Your task to perform on an android device: visit the assistant section in the google photos Image 0: 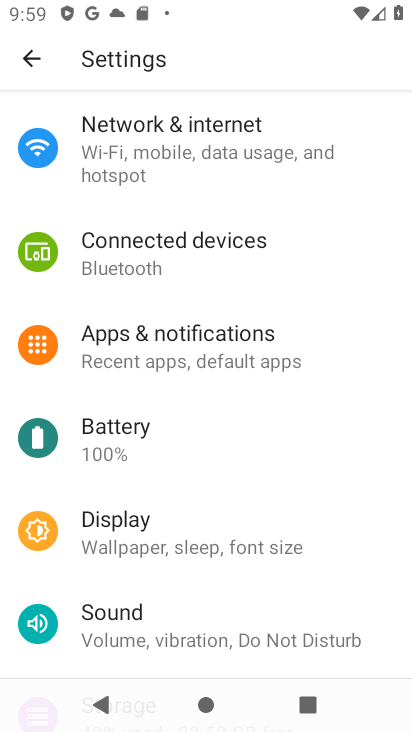
Step 0: press home button
Your task to perform on an android device: visit the assistant section in the google photos Image 1: 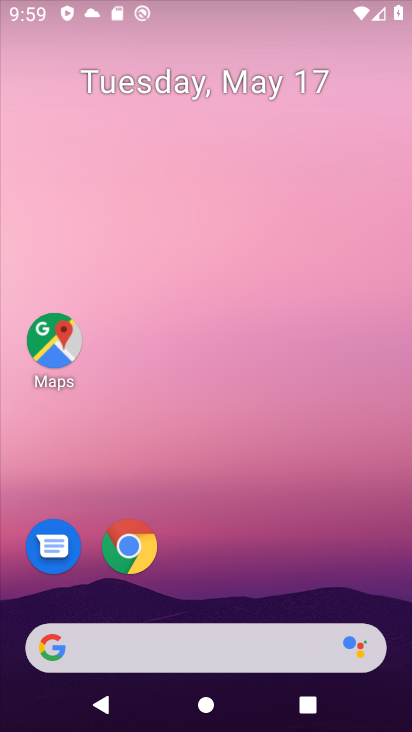
Step 1: drag from (186, 618) to (263, 230)
Your task to perform on an android device: visit the assistant section in the google photos Image 2: 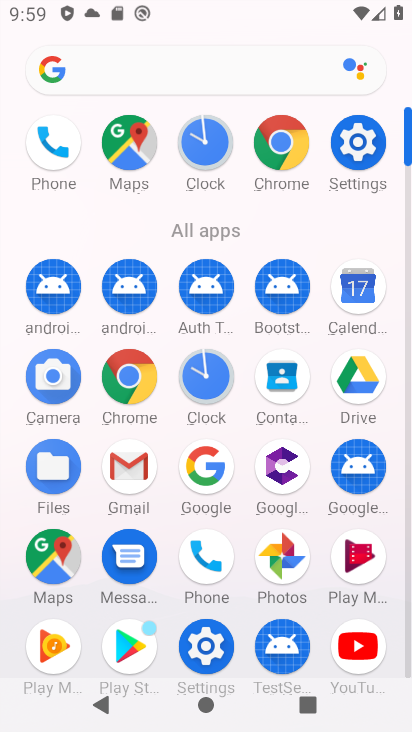
Step 2: click (273, 557)
Your task to perform on an android device: visit the assistant section in the google photos Image 3: 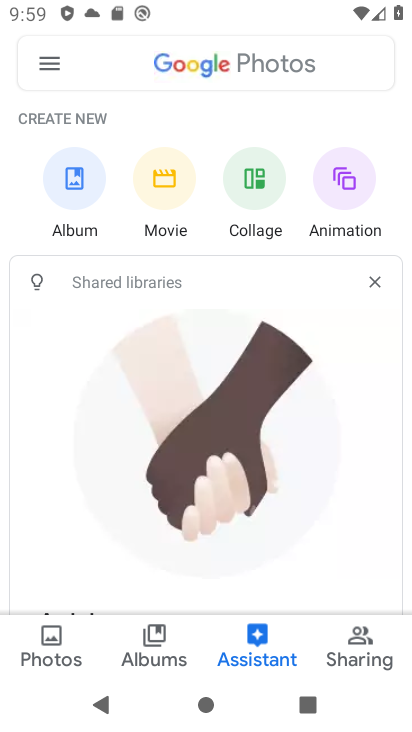
Step 3: task complete